Your task to perform on an android device: Search for "bose soundlink mini" on walmart, select the first entry, add it to the cart, then select checkout. Image 0: 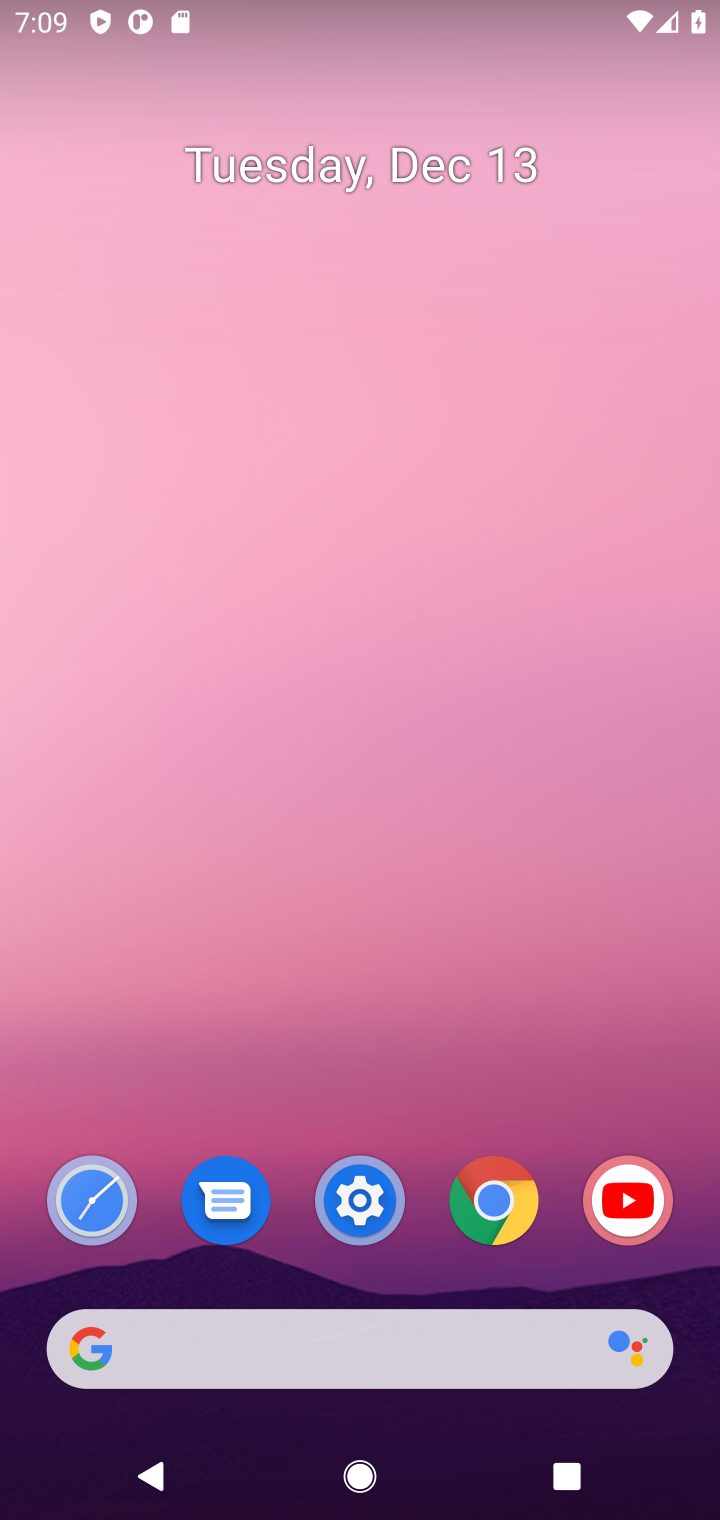
Step 0: click (364, 1352)
Your task to perform on an android device: Search for "bose soundlink mini" on walmart, select the first entry, add it to the cart, then select checkout. Image 1: 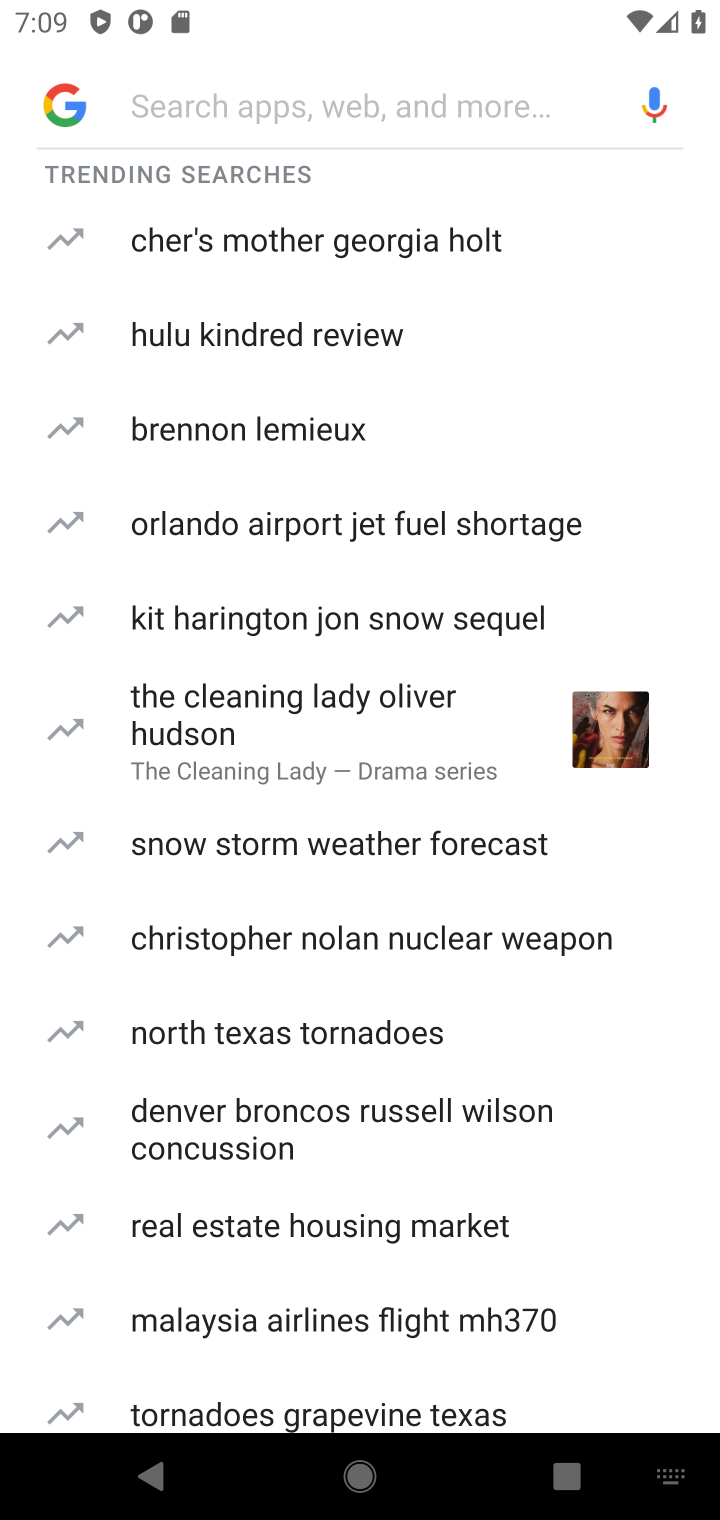
Step 1: type "14-Dec-2022"
Your task to perform on an android device: Search for "bose soundlink mini" on walmart, select the first entry, add it to the cart, then select checkout. Image 2: 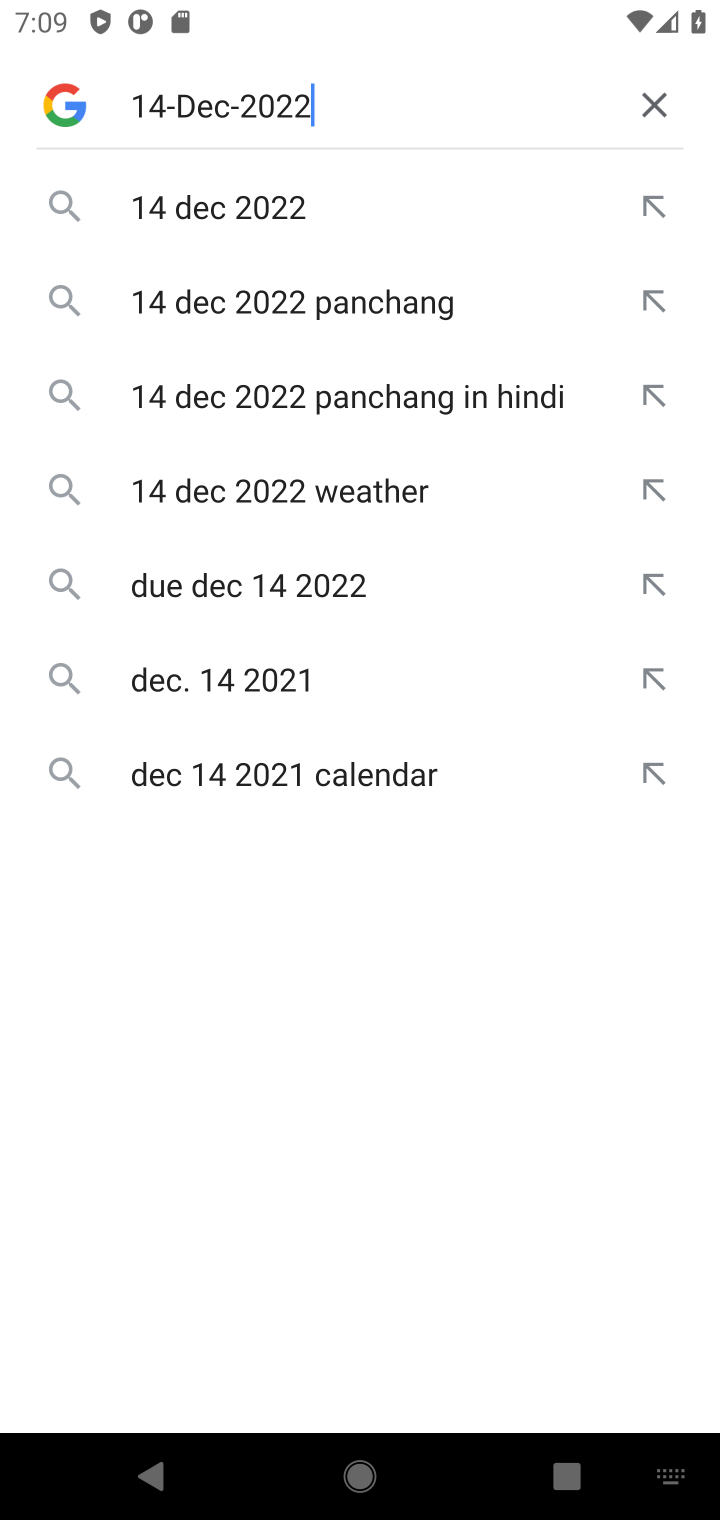
Step 2: click (651, 103)
Your task to perform on an android device: Search for "bose soundlink mini" on walmart, select the first entry, add it to the cart, then select checkout. Image 3: 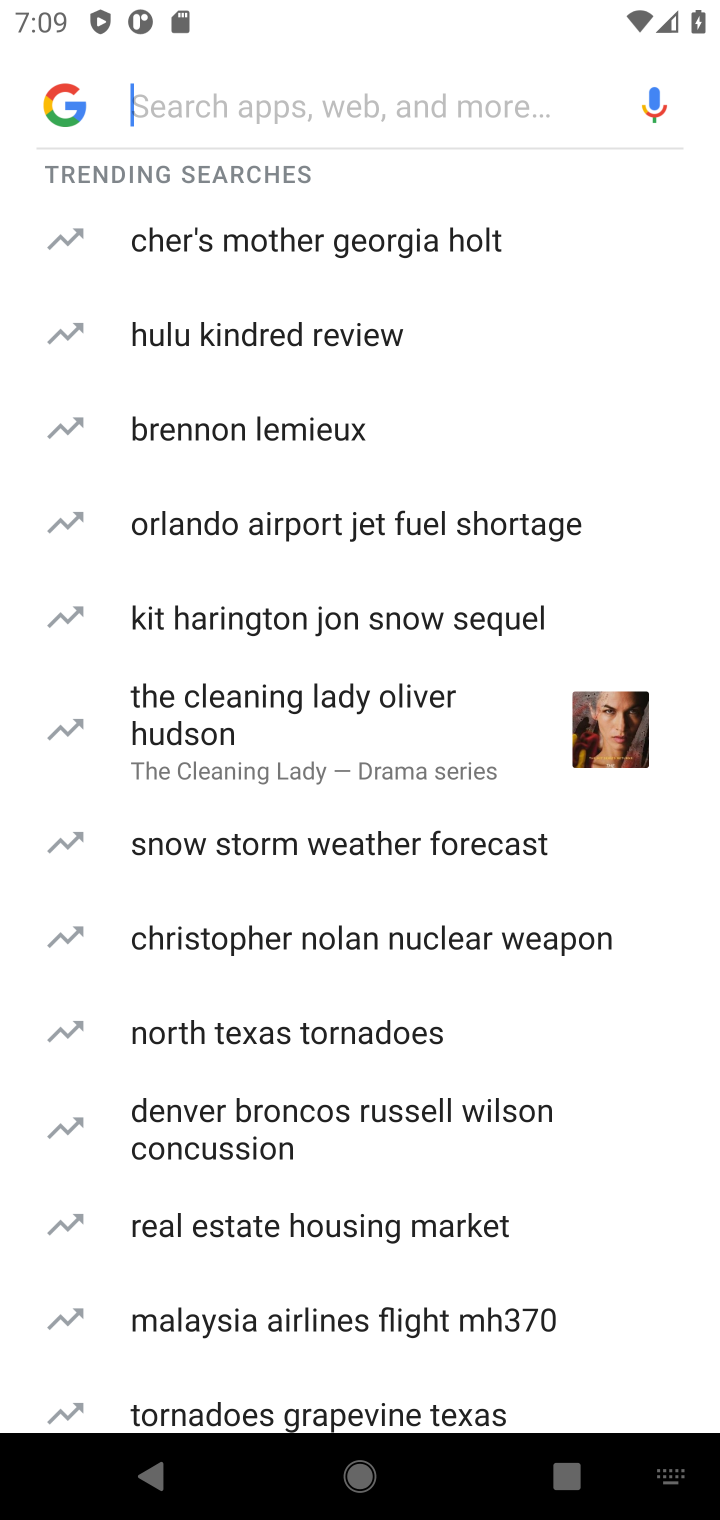
Step 3: type "walmart"
Your task to perform on an android device: Search for "bose soundlink mini" on walmart, select the first entry, add it to the cart, then select checkout. Image 4: 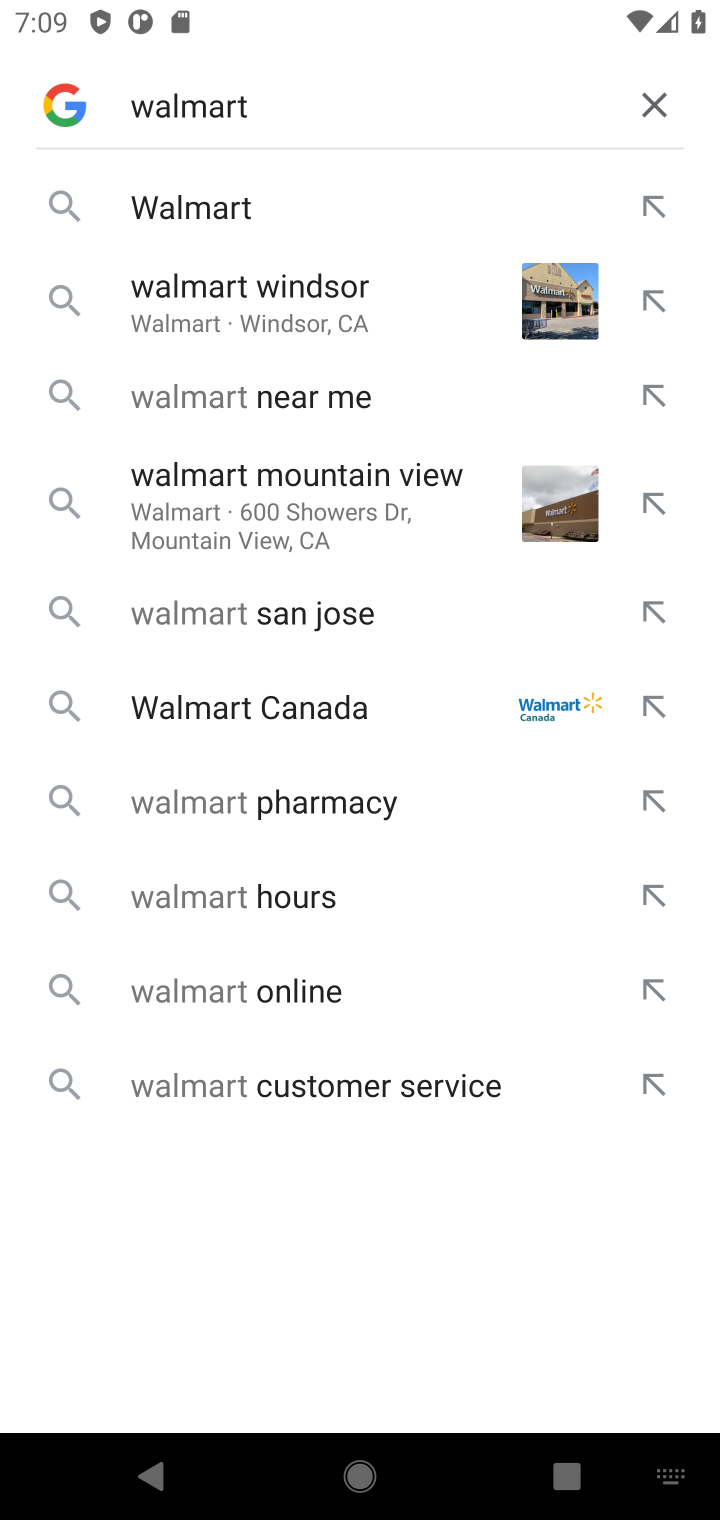
Step 4: click (228, 210)
Your task to perform on an android device: Search for "bose soundlink mini" on walmart, select the first entry, add it to the cart, then select checkout. Image 5: 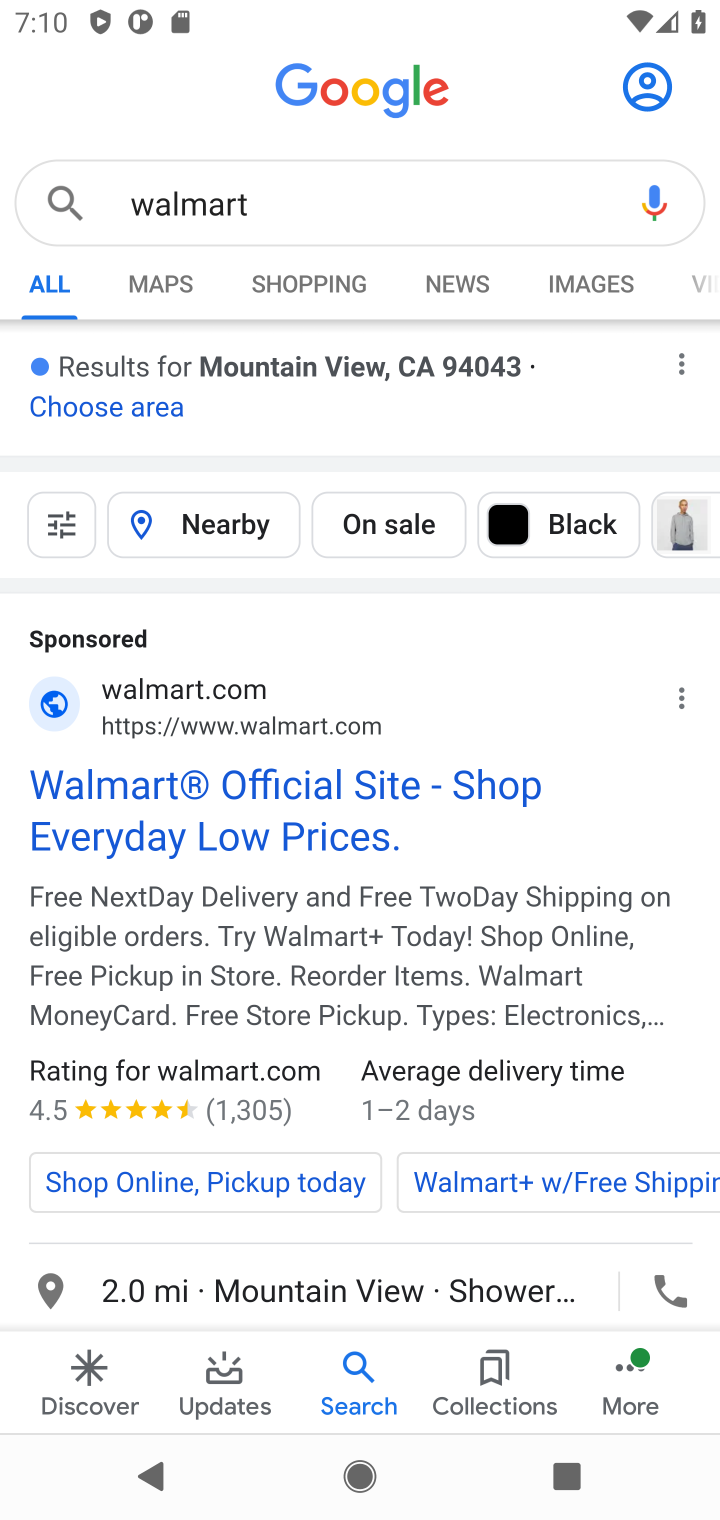
Step 5: drag from (244, 1143) to (307, 468)
Your task to perform on an android device: Search for "bose soundlink mini" on walmart, select the first entry, add it to the cart, then select checkout. Image 6: 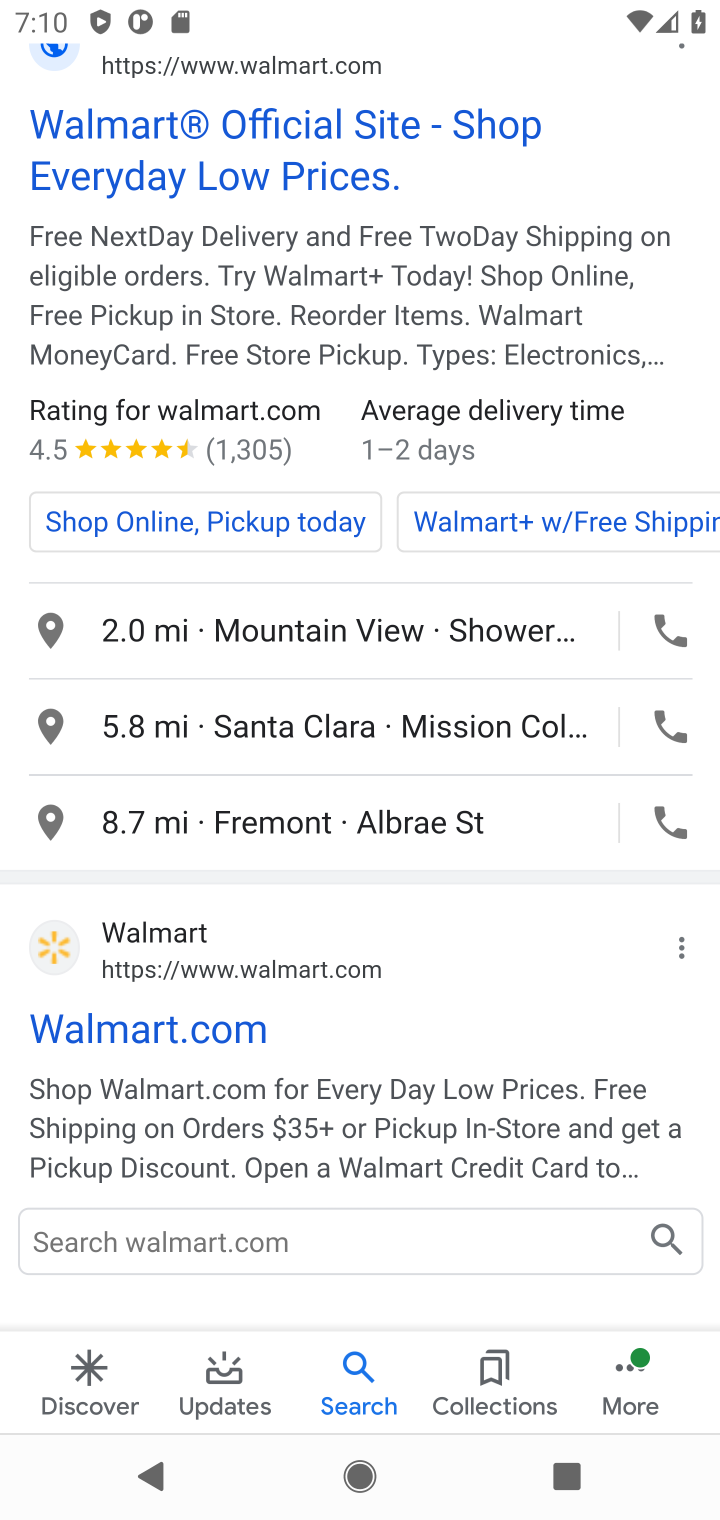
Step 6: click (142, 965)
Your task to perform on an android device: Search for "bose soundlink mini" on walmart, select the first entry, add it to the cart, then select checkout. Image 7: 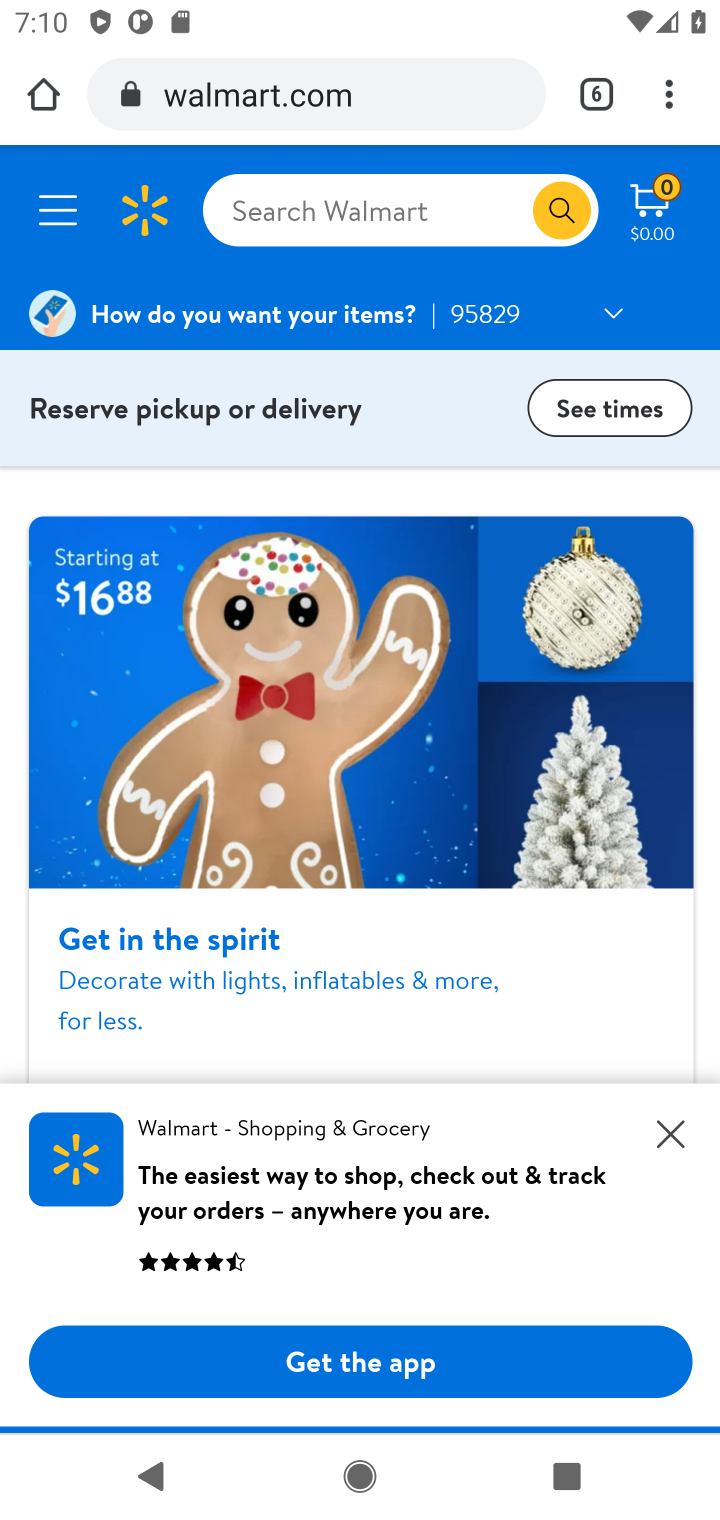
Step 7: click (424, 198)
Your task to perform on an android device: Search for "bose soundlink mini" on walmart, select the first entry, add it to the cart, then select checkout. Image 8: 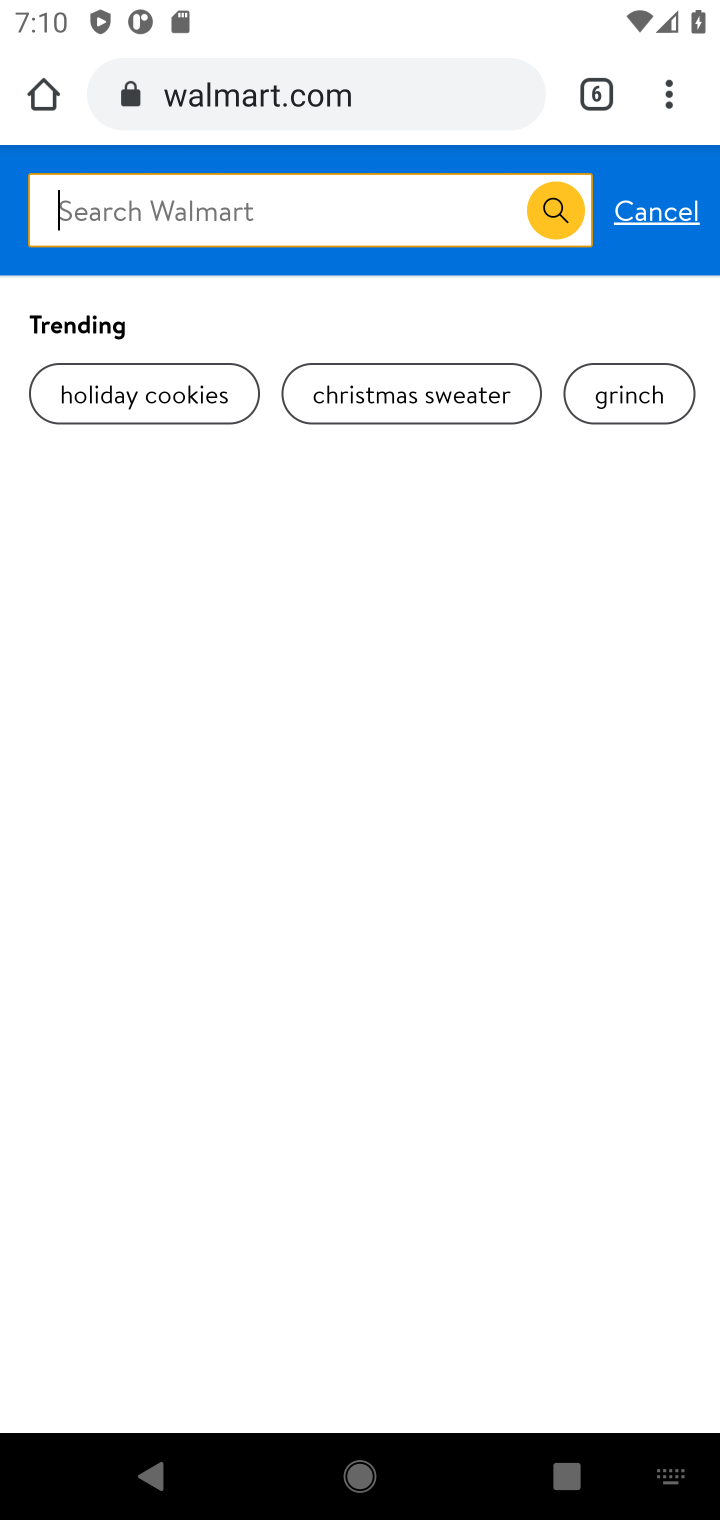
Step 8: type "bose soundlink mini""
Your task to perform on an android device: Search for "bose soundlink mini" on walmart, select the first entry, add it to the cart, then select checkout. Image 9: 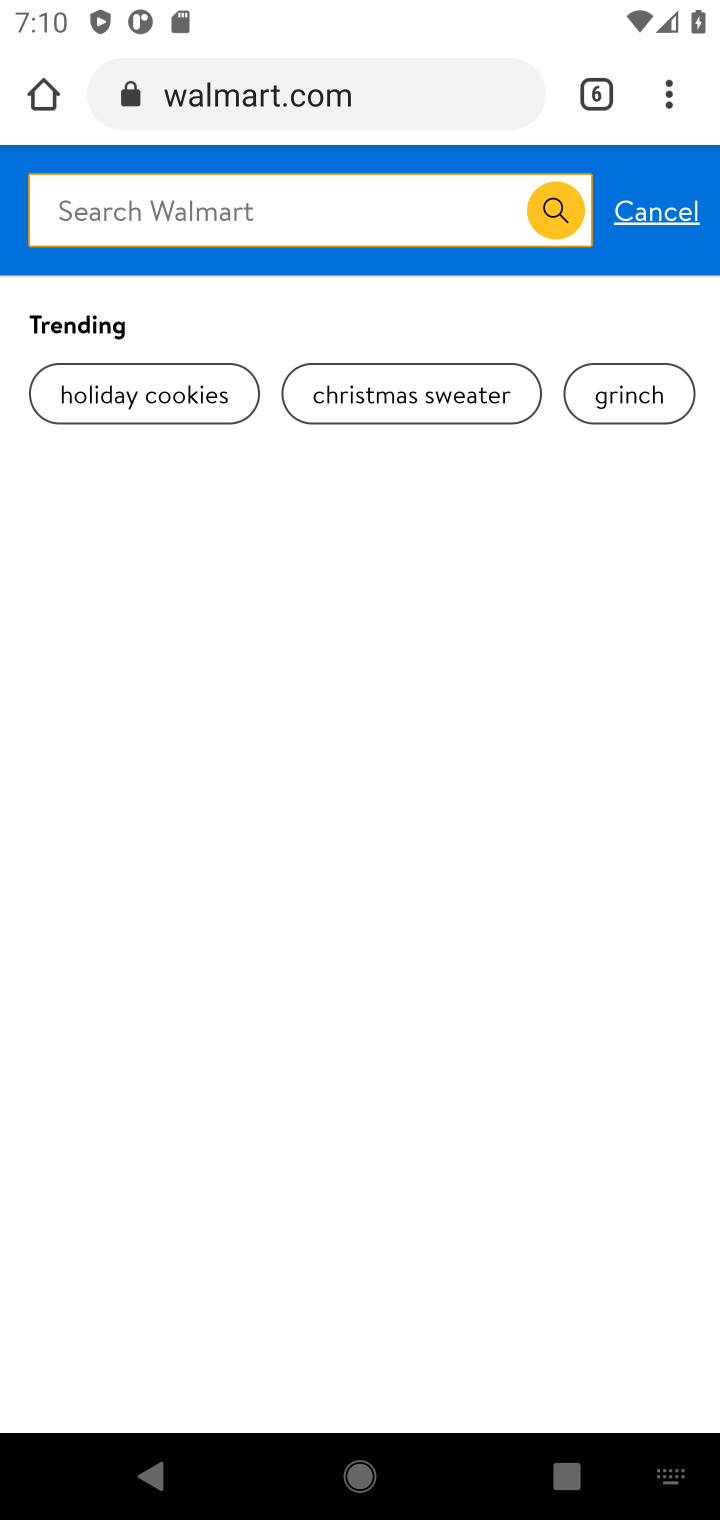
Step 9: type "bose soundlink mini""
Your task to perform on an android device: Search for "bose soundlink mini" on walmart, select the first entry, add it to the cart, then select checkout. Image 10: 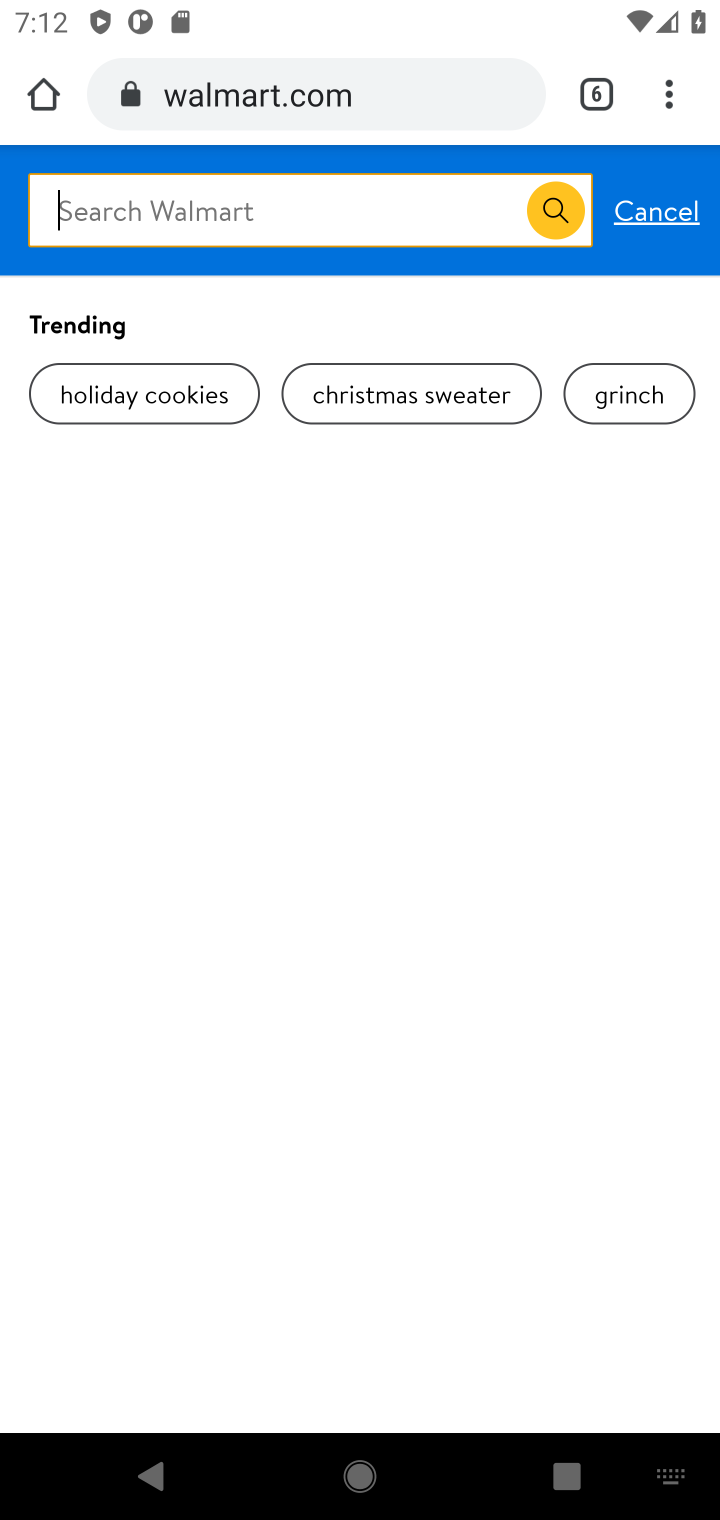
Step 10: task complete